Your task to perform on an android device: Show the shopping cart on newegg. Add asus zenbook to the cart on newegg Image 0: 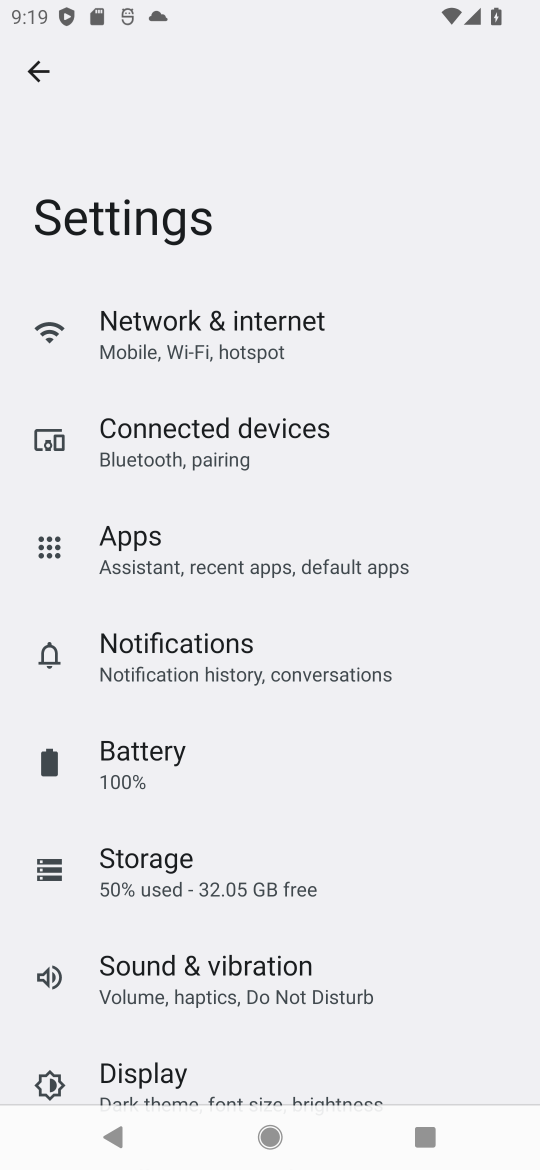
Step 0: press home button
Your task to perform on an android device: Show the shopping cart on newegg. Add asus zenbook to the cart on newegg Image 1: 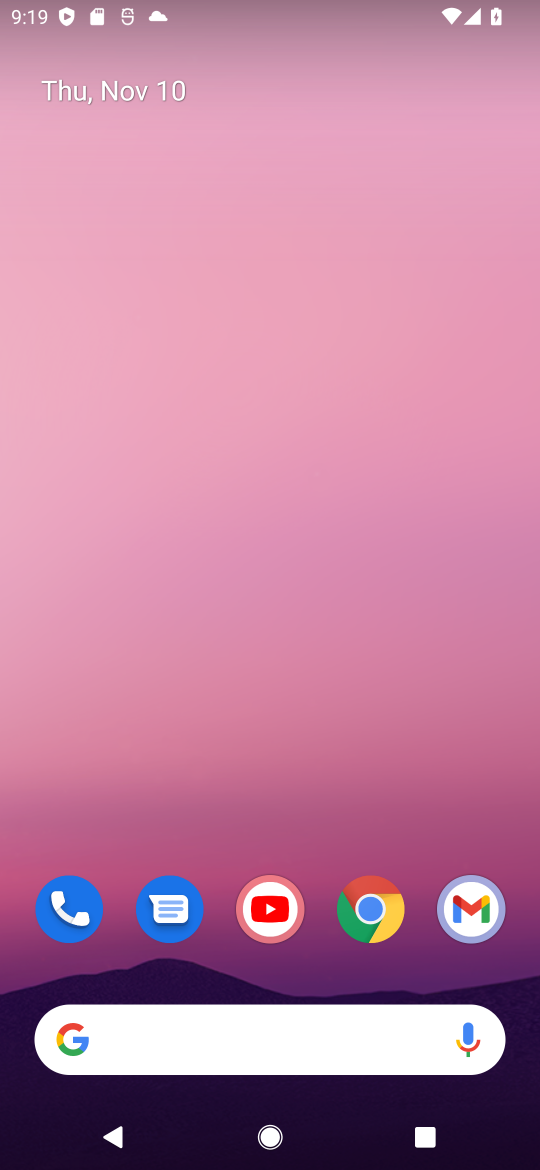
Step 1: drag from (242, 989) to (275, 368)
Your task to perform on an android device: Show the shopping cart on newegg. Add asus zenbook to the cart on newegg Image 2: 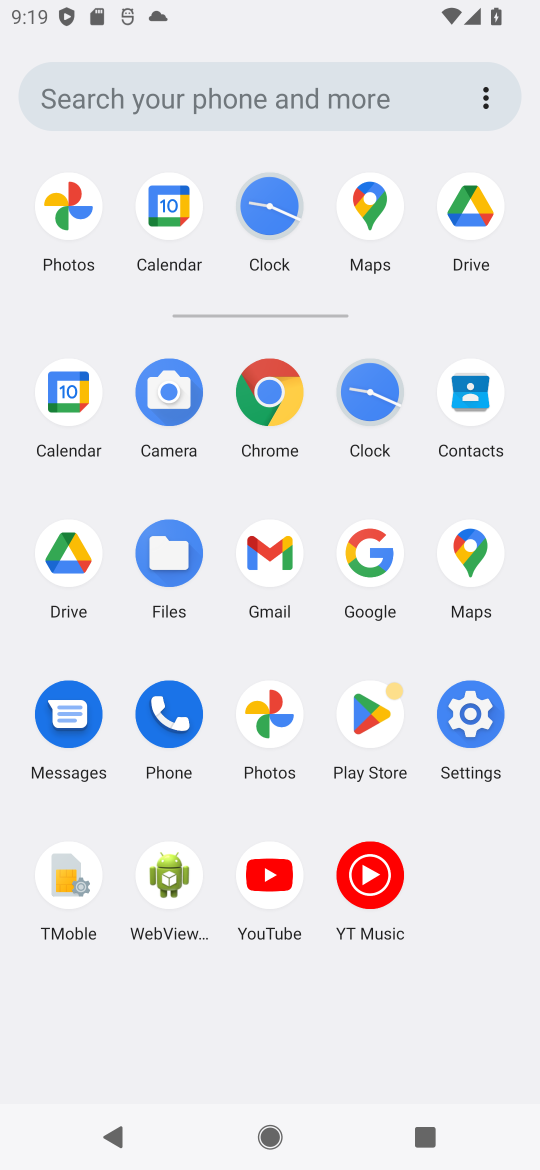
Step 2: click (363, 537)
Your task to perform on an android device: Show the shopping cart on newegg. Add asus zenbook to the cart on newegg Image 3: 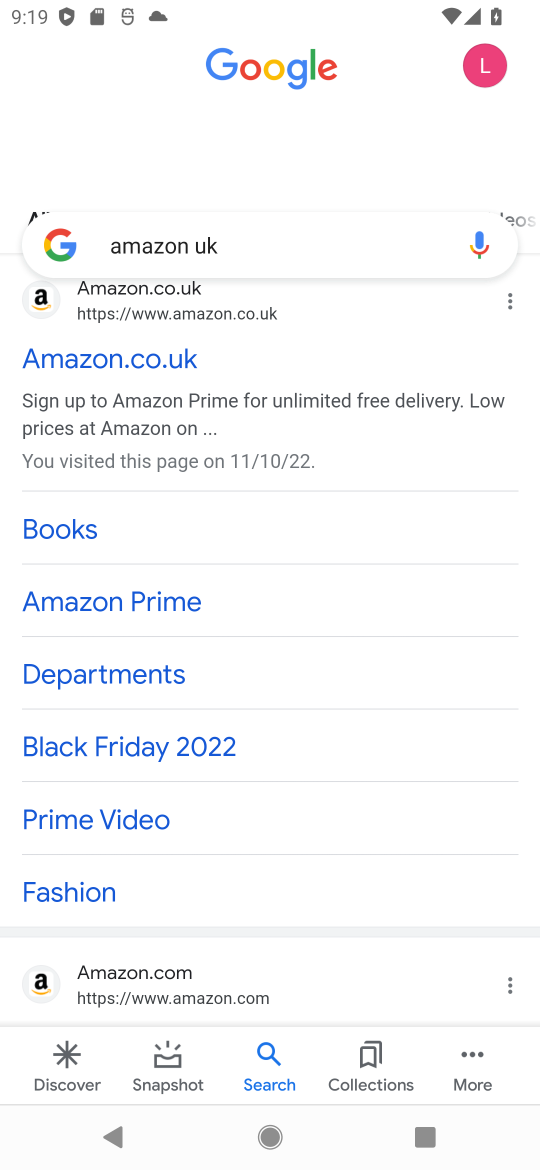
Step 3: click (200, 224)
Your task to perform on an android device: Show the shopping cart on newegg. Add asus zenbook to the cart on newegg Image 4: 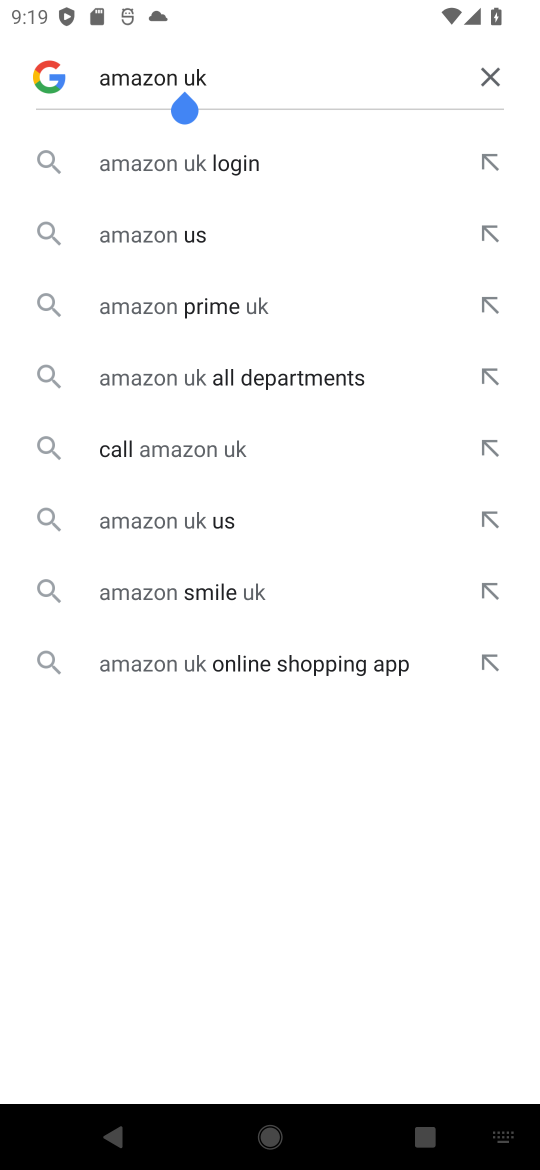
Step 4: click (504, 73)
Your task to perform on an android device: Show the shopping cart on newegg. Add asus zenbook to the cart on newegg Image 5: 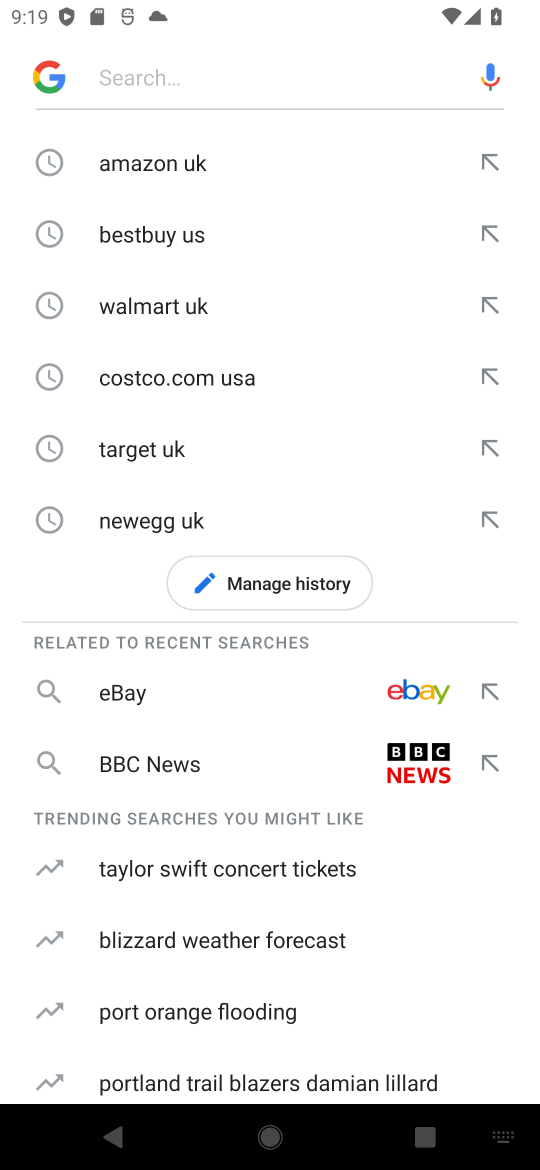
Step 5: click (121, 512)
Your task to perform on an android device: Show the shopping cart on newegg. Add asus zenbook to the cart on newegg Image 6: 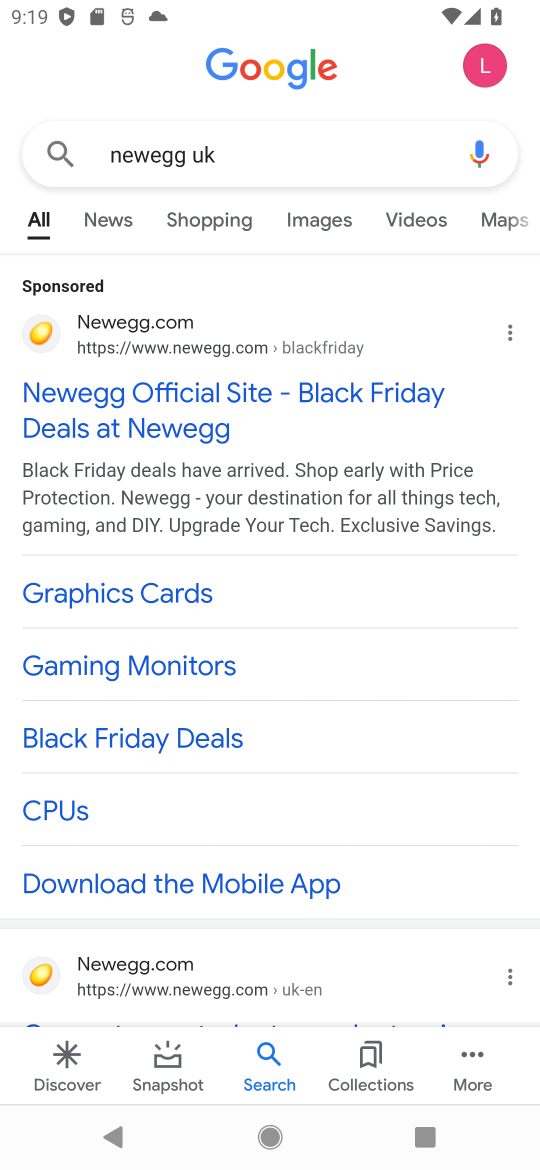
Step 6: click (31, 332)
Your task to perform on an android device: Show the shopping cart on newegg. Add asus zenbook to the cart on newegg Image 7: 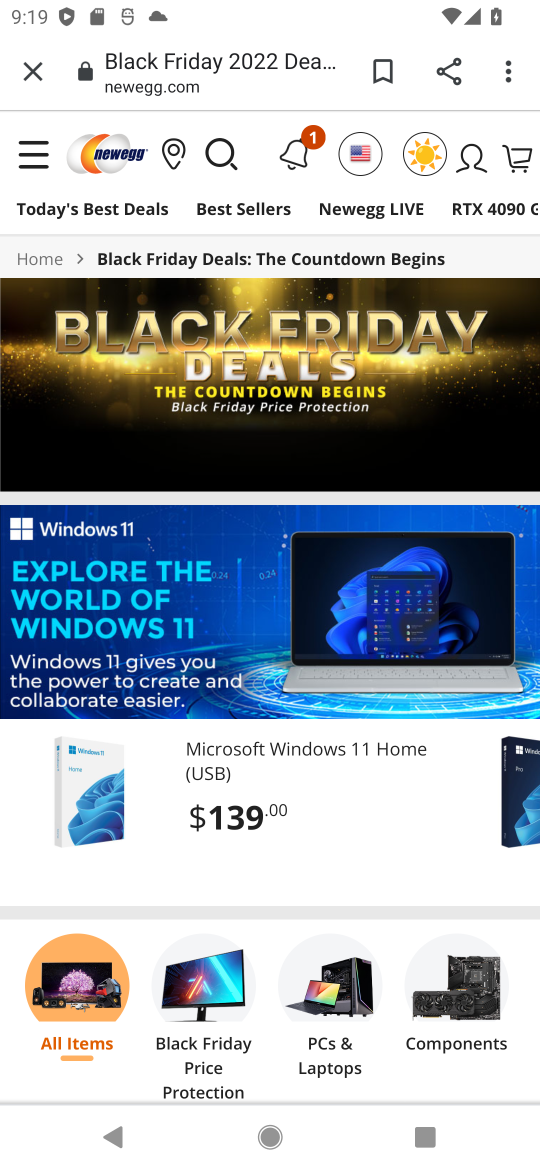
Step 7: click (220, 147)
Your task to perform on an android device: Show the shopping cart on newegg. Add asus zenbook to the cart on newegg Image 8: 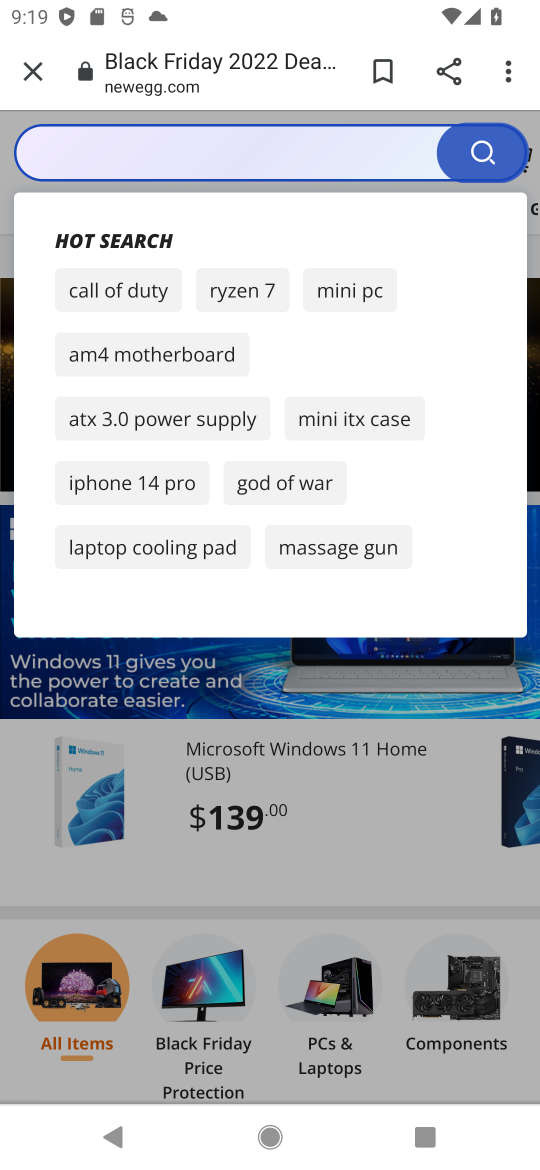
Step 8: click (208, 147)
Your task to perform on an android device: Show the shopping cart on newegg. Add asus zenbook to the cart on newegg Image 9: 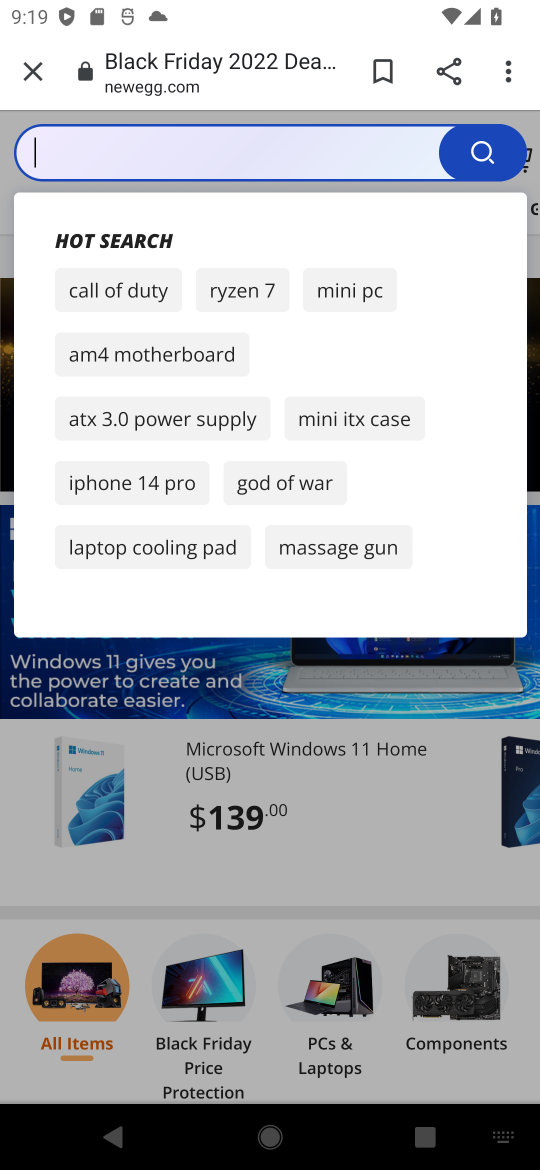
Step 9: type " asus zenbook  "
Your task to perform on an android device: Show the shopping cart on newegg. Add asus zenbook to the cart on newegg Image 10: 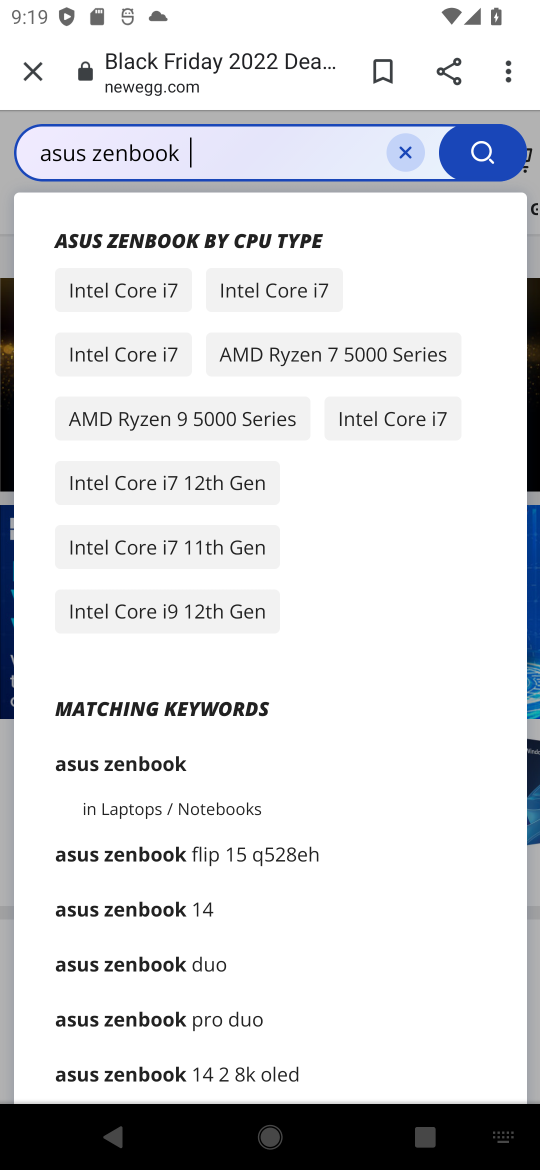
Step 10: click (163, 751)
Your task to perform on an android device: Show the shopping cart on newegg. Add asus zenbook to the cart on newegg Image 11: 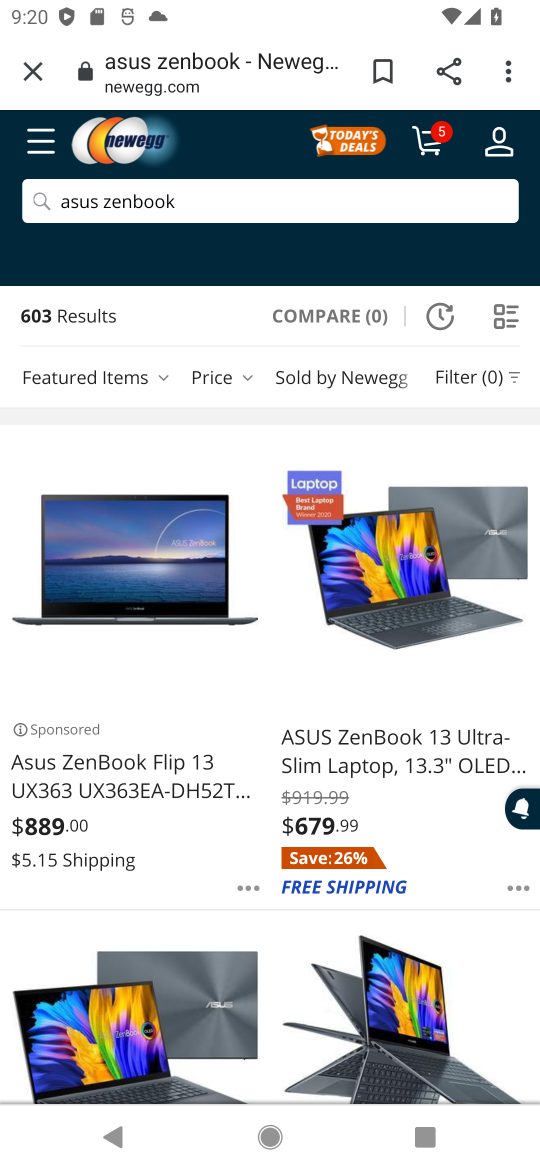
Step 11: click (147, 763)
Your task to perform on an android device: Show the shopping cart on newegg. Add asus zenbook to the cart on newegg Image 12: 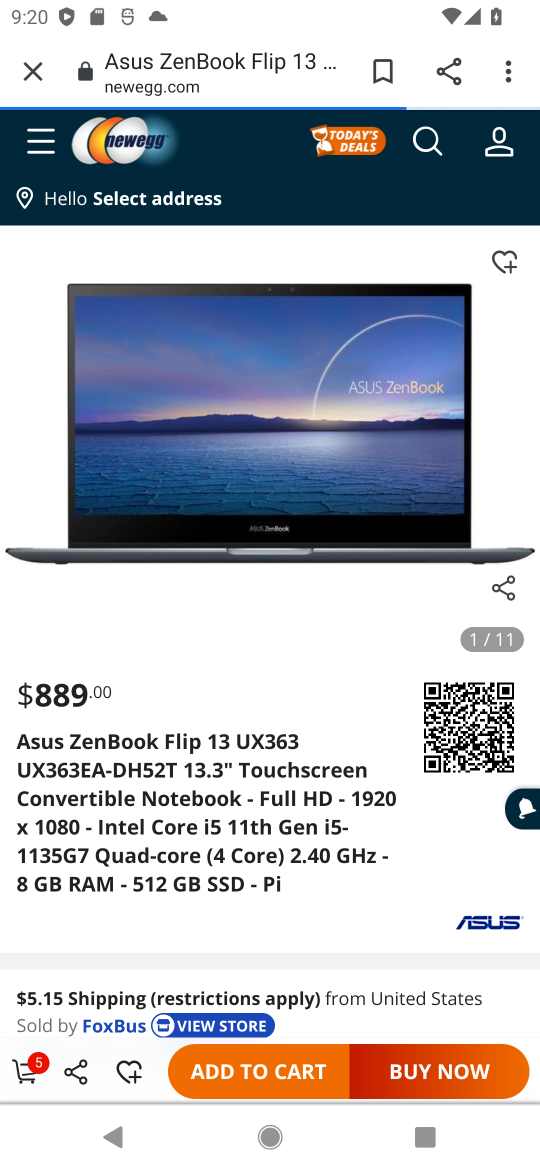
Step 12: click (253, 1054)
Your task to perform on an android device: Show the shopping cart on newegg. Add asus zenbook to the cart on newegg Image 13: 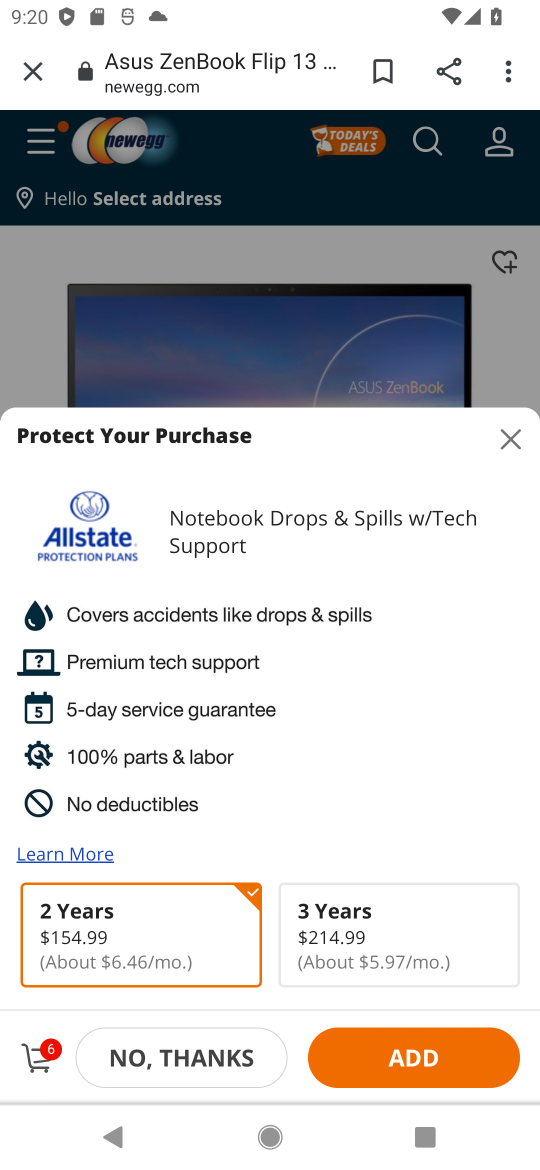
Step 13: task complete